Your task to perform on an android device: change notification settings in the gmail app Image 0: 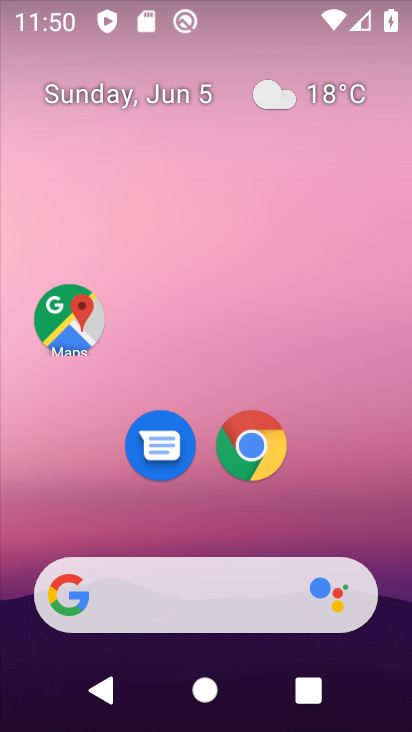
Step 0: drag from (262, 372) to (291, 17)
Your task to perform on an android device: change notification settings in the gmail app Image 1: 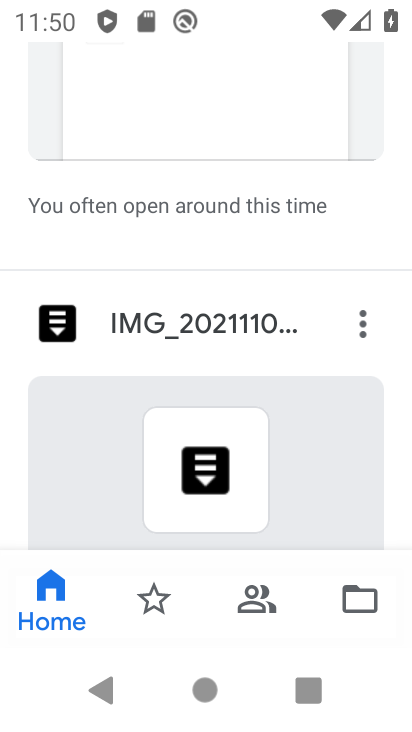
Step 1: press home button
Your task to perform on an android device: change notification settings in the gmail app Image 2: 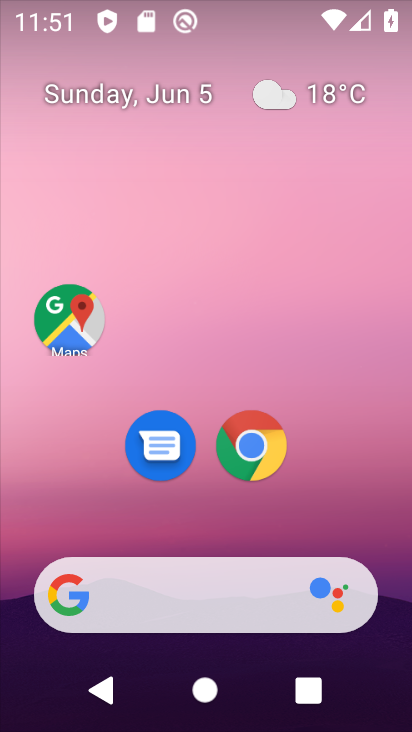
Step 2: drag from (289, 562) to (293, 94)
Your task to perform on an android device: change notification settings in the gmail app Image 3: 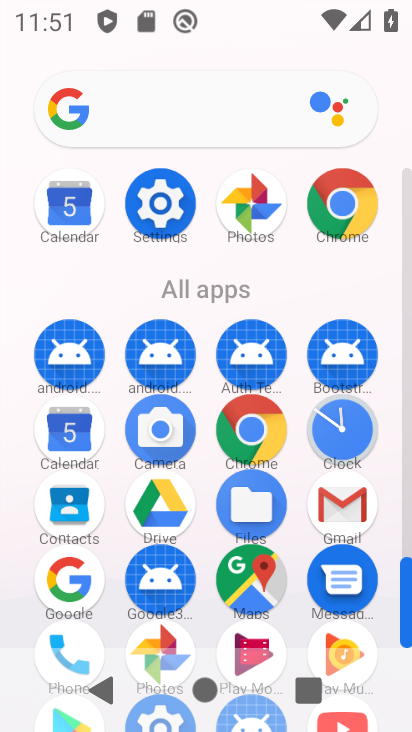
Step 3: click (335, 513)
Your task to perform on an android device: change notification settings in the gmail app Image 4: 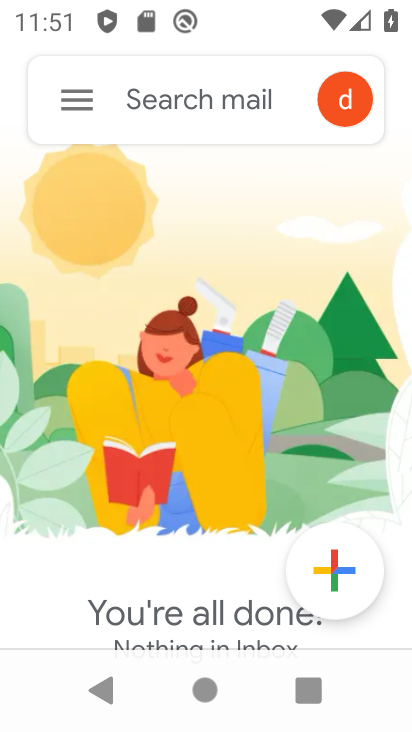
Step 4: click (81, 96)
Your task to perform on an android device: change notification settings in the gmail app Image 5: 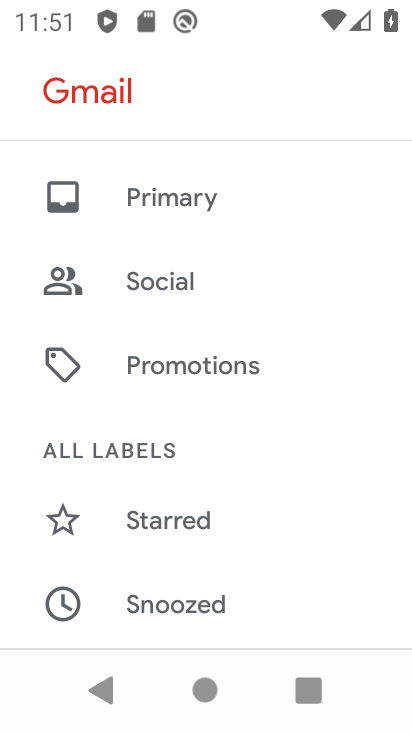
Step 5: drag from (204, 583) to (226, 126)
Your task to perform on an android device: change notification settings in the gmail app Image 6: 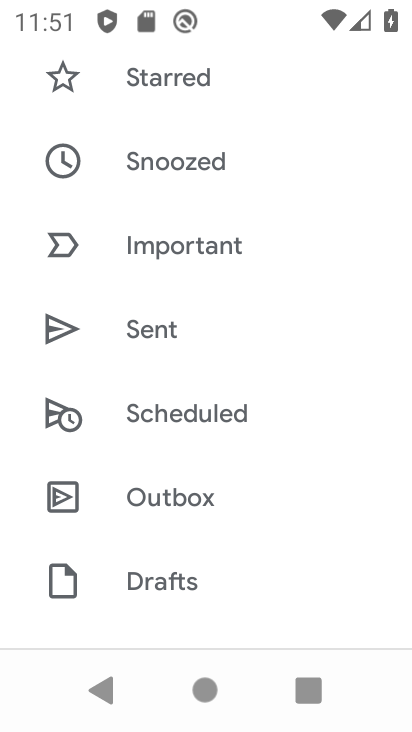
Step 6: drag from (302, 603) to (371, 181)
Your task to perform on an android device: change notification settings in the gmail app Image 7: 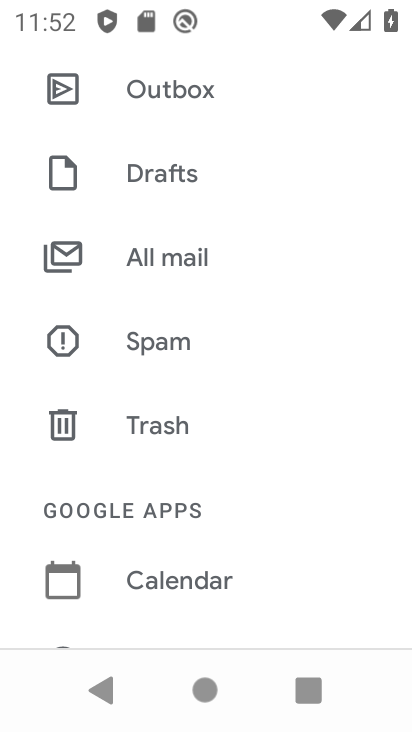
Step 7: drag from (202, 624) to (291, 131)
Your task to perform on an android device: change notification settings in the gmail app Image 8: 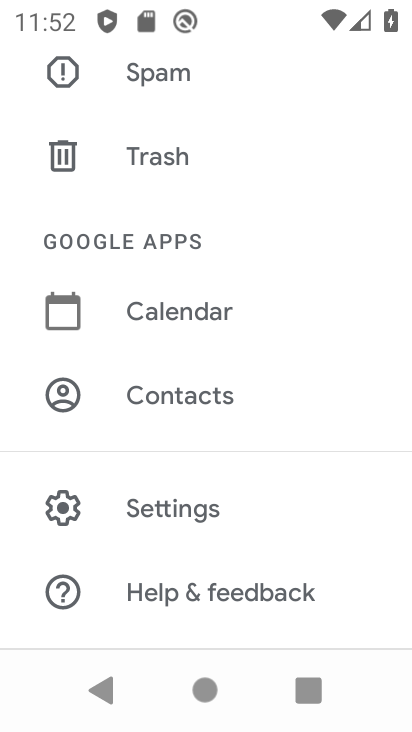
Step 8: click (241, 521)
Your task to perform on an android device: change notification settings in the gmail app Image 9: 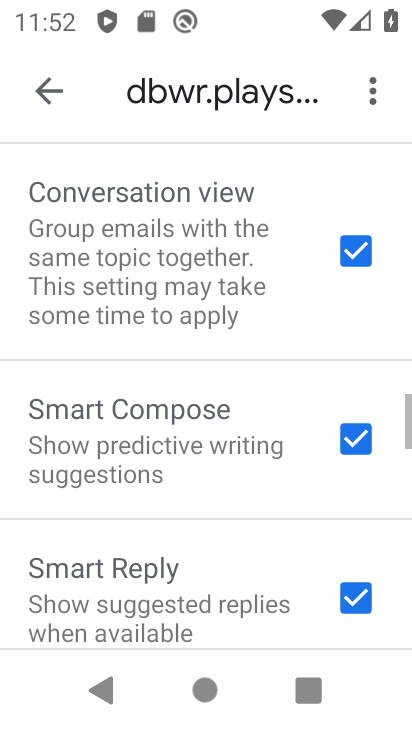
Step 9: drag from (238, 173) to (283, 69)
Your task to perform on an android device: change notification settings in the gmail app Image 10: 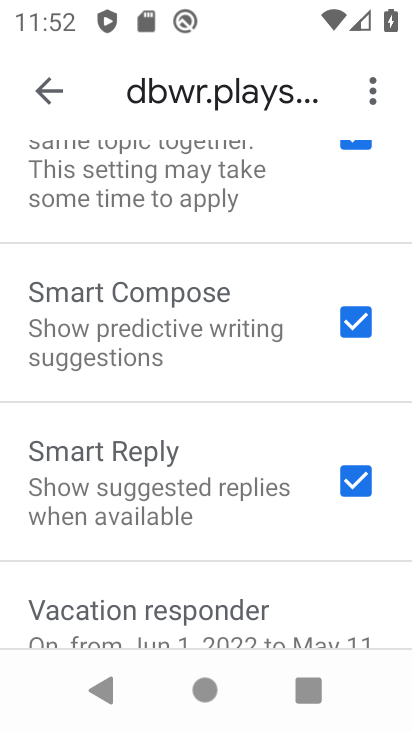
Step 10: drag from (256, 593) to (304, 234)
Your task to perform on an android device: change notification settings in the gmail app Image 11: 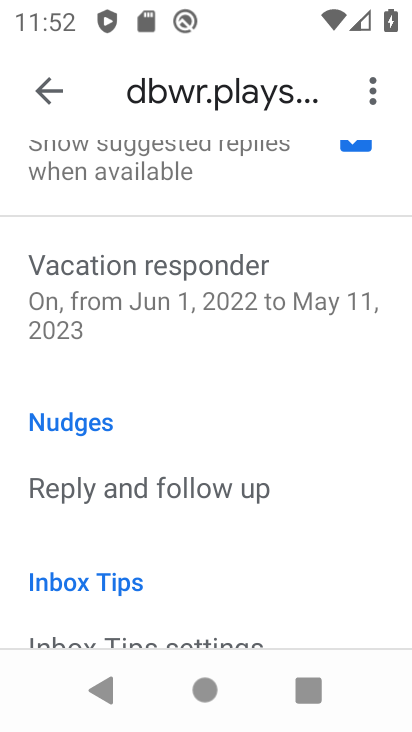
Step 11: drag from (274, 185) to (310, 657)
Your task to perform on an android device: change notification settings in the gmail app Image 12: 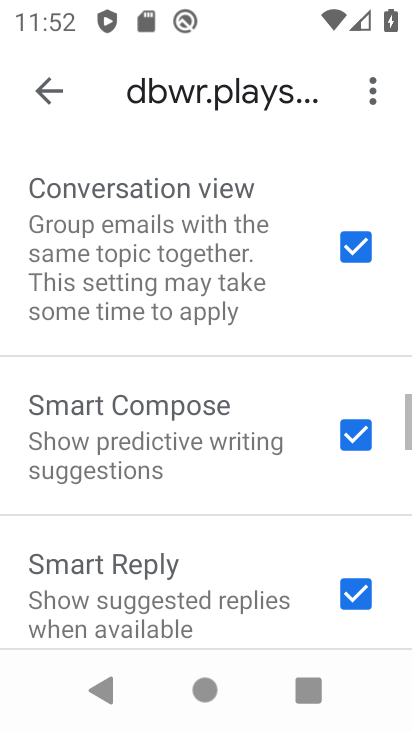
Step 12: drag from (235, 182) to (197, 601)
Your task to perform on an android device: change notification settings in the gmail app Image 13: 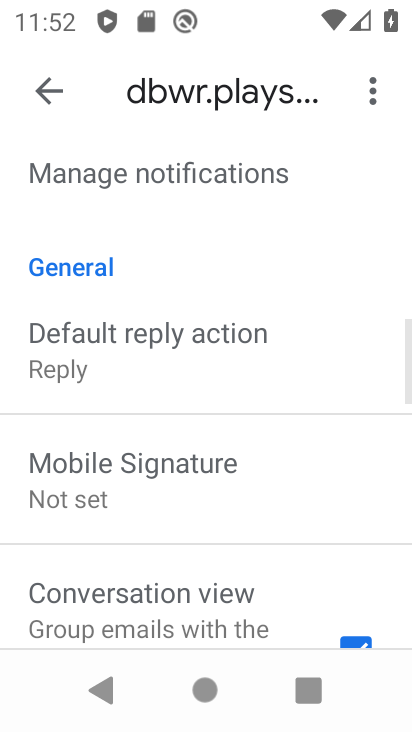
Step 13: drag from (280, 359) to (227, 604)
Your task to perform on an android device: change notification settings in the gmail app Image 14: 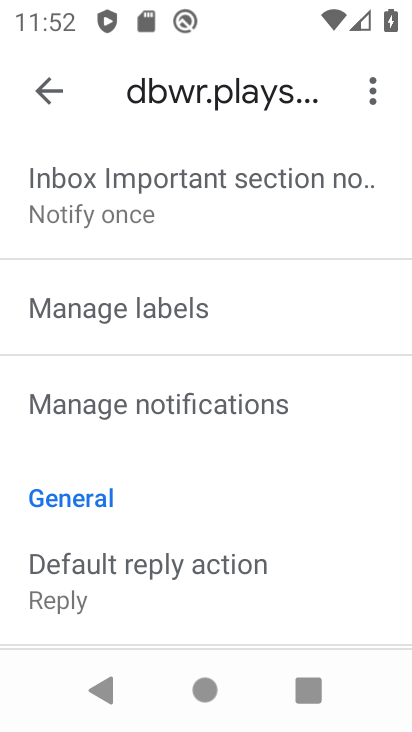
Step 14: click (218, 408)
Your task to perform on an android device: change notification settings in the gmail app Image 15: 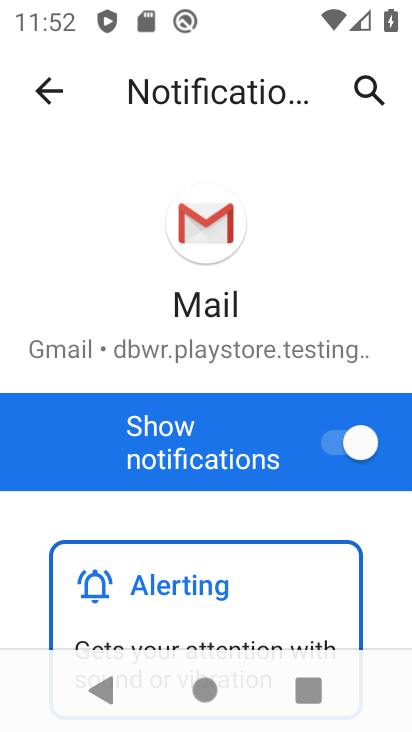
Step 15: click (340, 448)
Your task to perform on an android device: change notification settings in the gmail app Image 16: 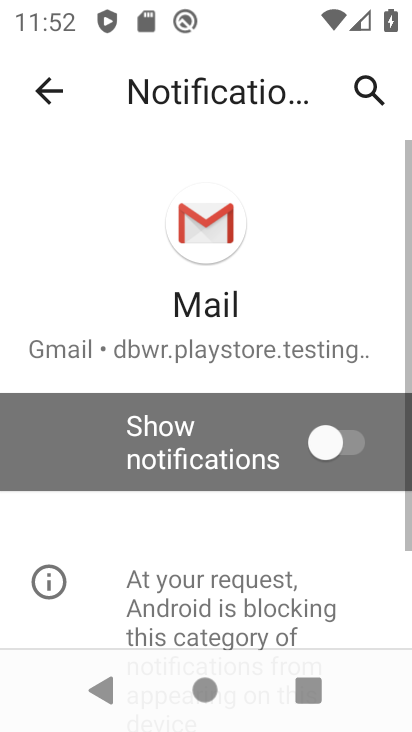
Step 16: task complete